Your task to perform on an android device: delete the emails in spam in the gmail app Image 0: 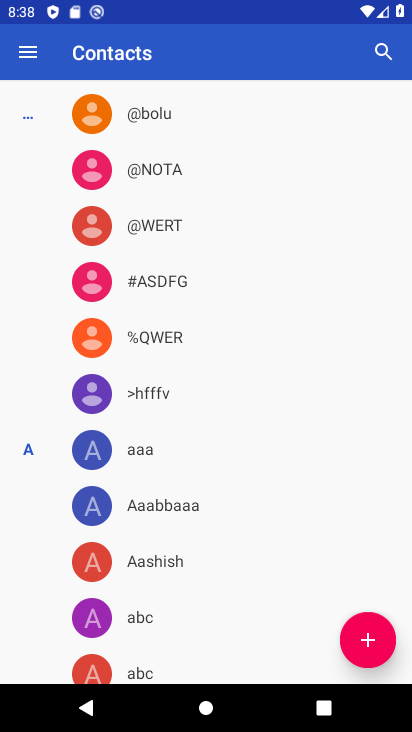
Step 0: press back button
Your task to perform on an android device: delete the emails in spam in the gmail app Image 1: 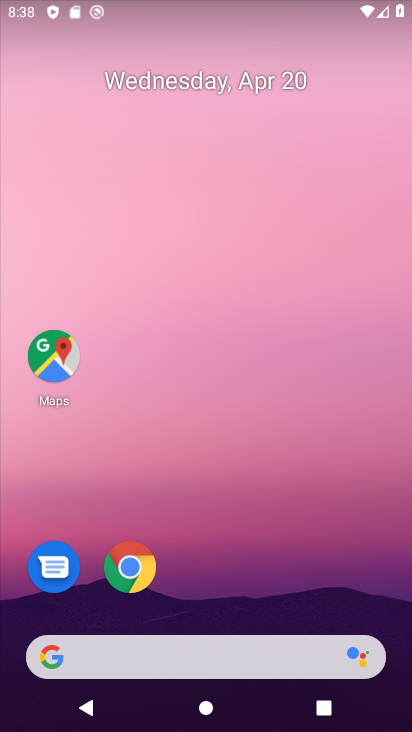
Step 1: drag from (265, 380) to (332, 63)
Your task to perform on an android device: delete the emails in spam in the gmail app Image 2: 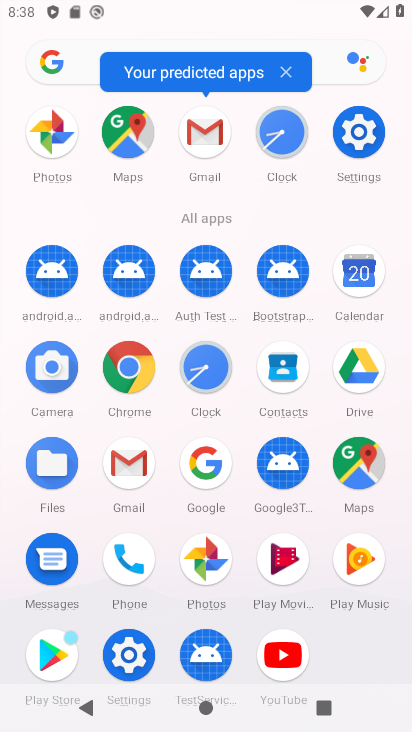
Step 2: click (124, 471)
Your task to perform on an android device: delete the emails in spam in the gmail app Image 3: 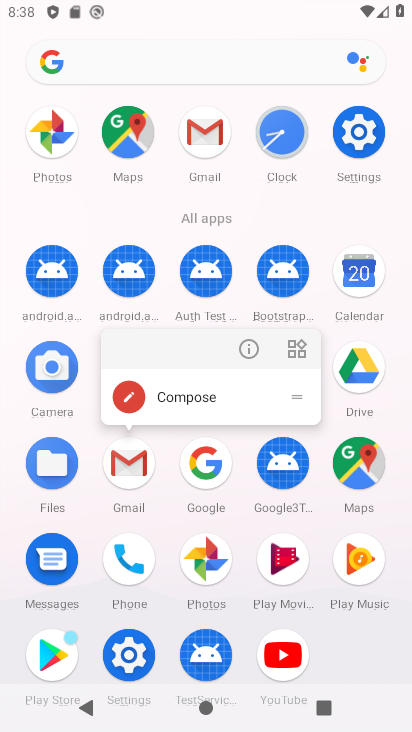
Step 3: click (149, 477)
Your task to perform on an android device: delete the emails in spam in the gmail app Image 4: 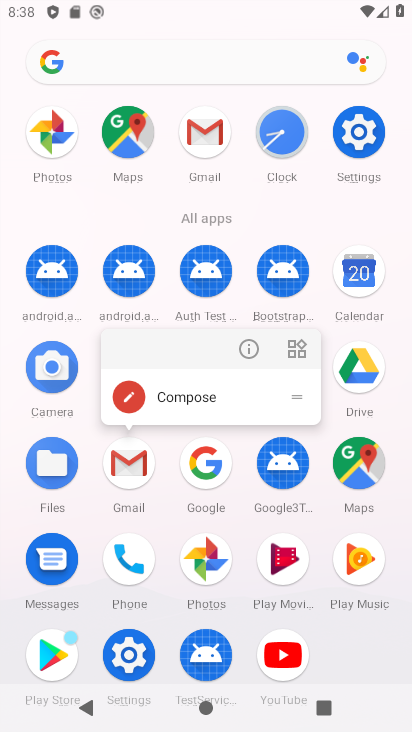
Step 4: click (131, 477)
Your task to perform on an android device: delete the emails in spam in the gmail app Image 5: 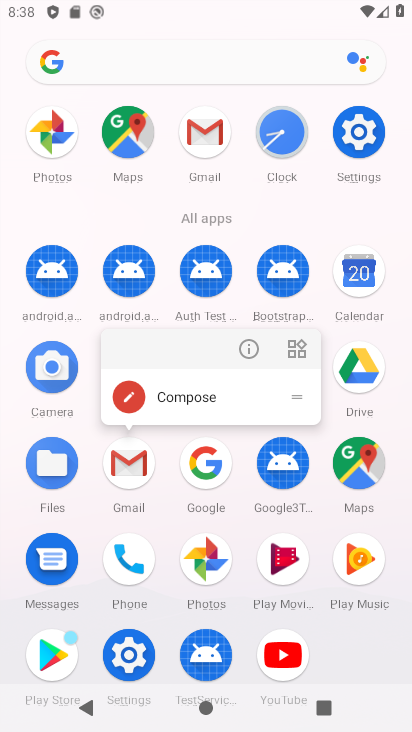
Step 5: click (141, 462)
Your task to perform on an android device: delete the emails in spam in the gmail app Image 6: 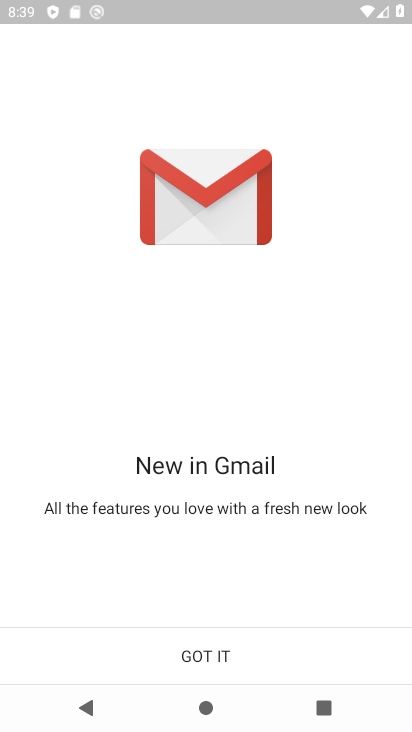
Step 6: click (177, 657)
Your task to perform on an android device: delete the emails in spam in the gmail app Image 7: 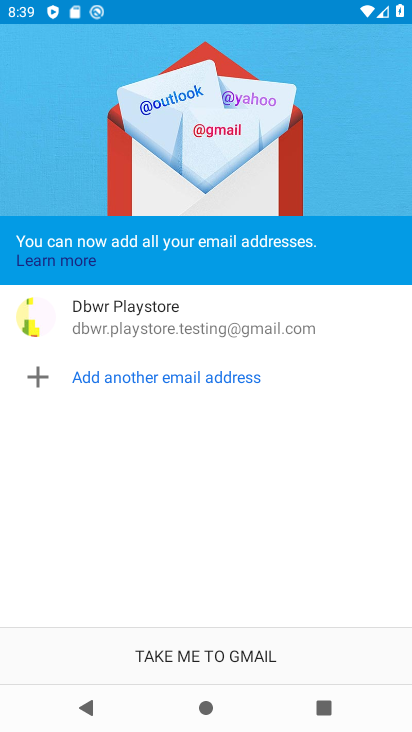
Step 7: click (177, 657)
Your task to perform on an android device: delete the emails in spam in the gmail app Image 8: 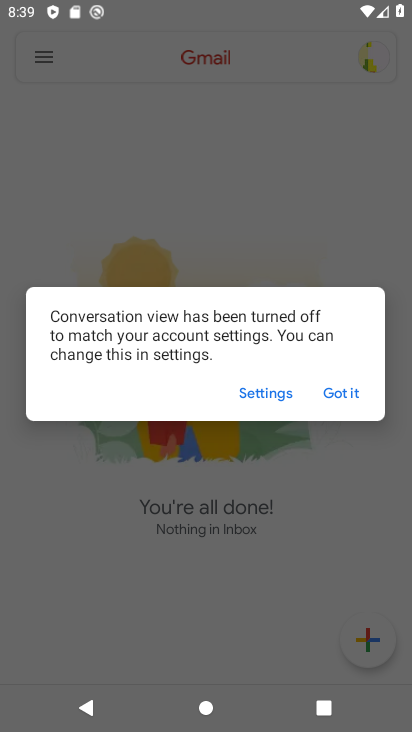
Step 8: click (358, 409)
Your task to perform on an android device: delete the emails in spam in the gmail app Image 9: 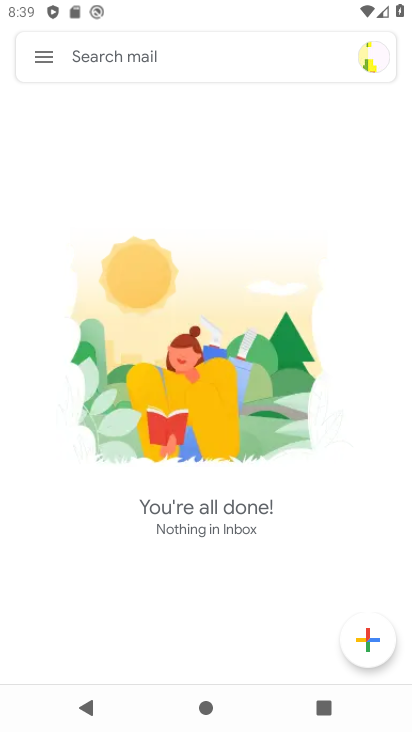
Step 9: click (65, 67)
Your task to perform on an android device: delete the emails in spam in the gmail app Image 10: 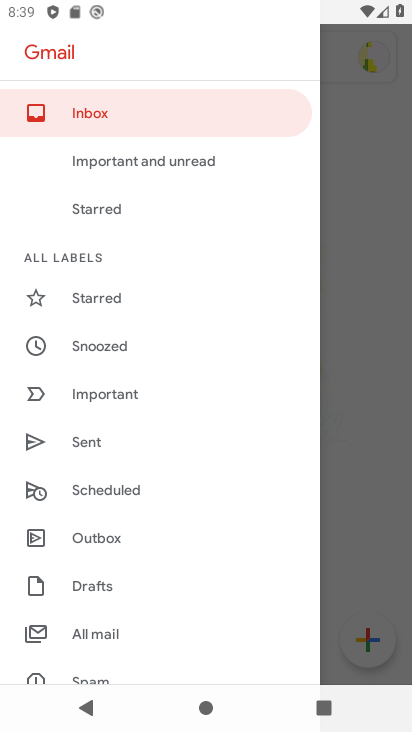
Step 10: drag from (130, 604) to (185, 383)
Your task to perform on an android device: delete the emails in spam in the gmail app Image 11: 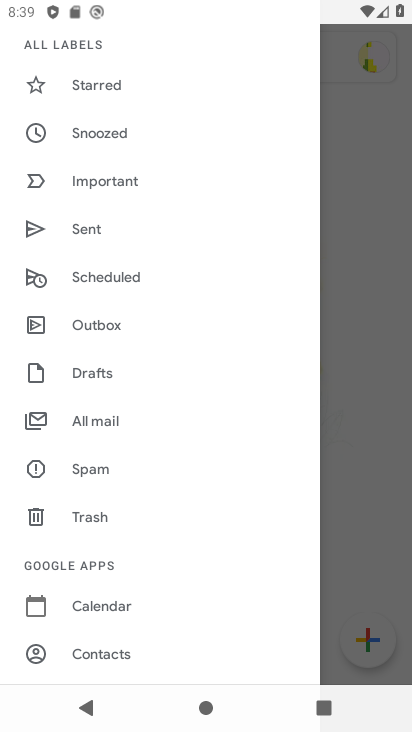
Step 11: click (110, 473)
Your task to perform on an android device: delete the emails in spam in the gmail app Image 12: 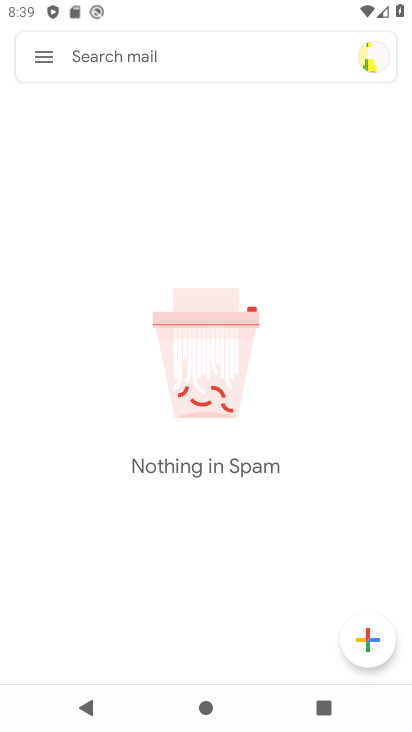
Step 12: task complete